Your task to perform on an android device: Search for flights from Tokyo to NYC Image 0: 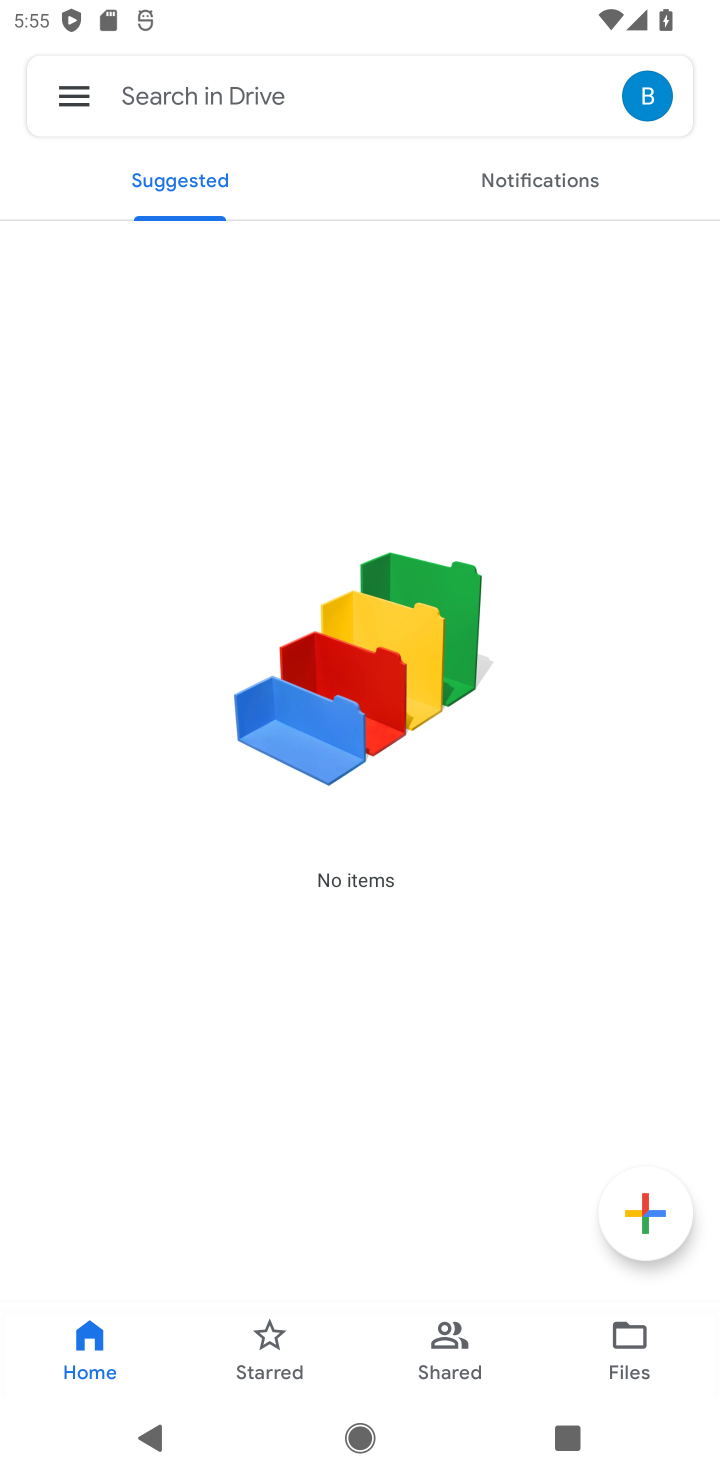
Step 0: press home button
Your task to perform on an android device: Search for flights from Tokyo to NYC Image 1: 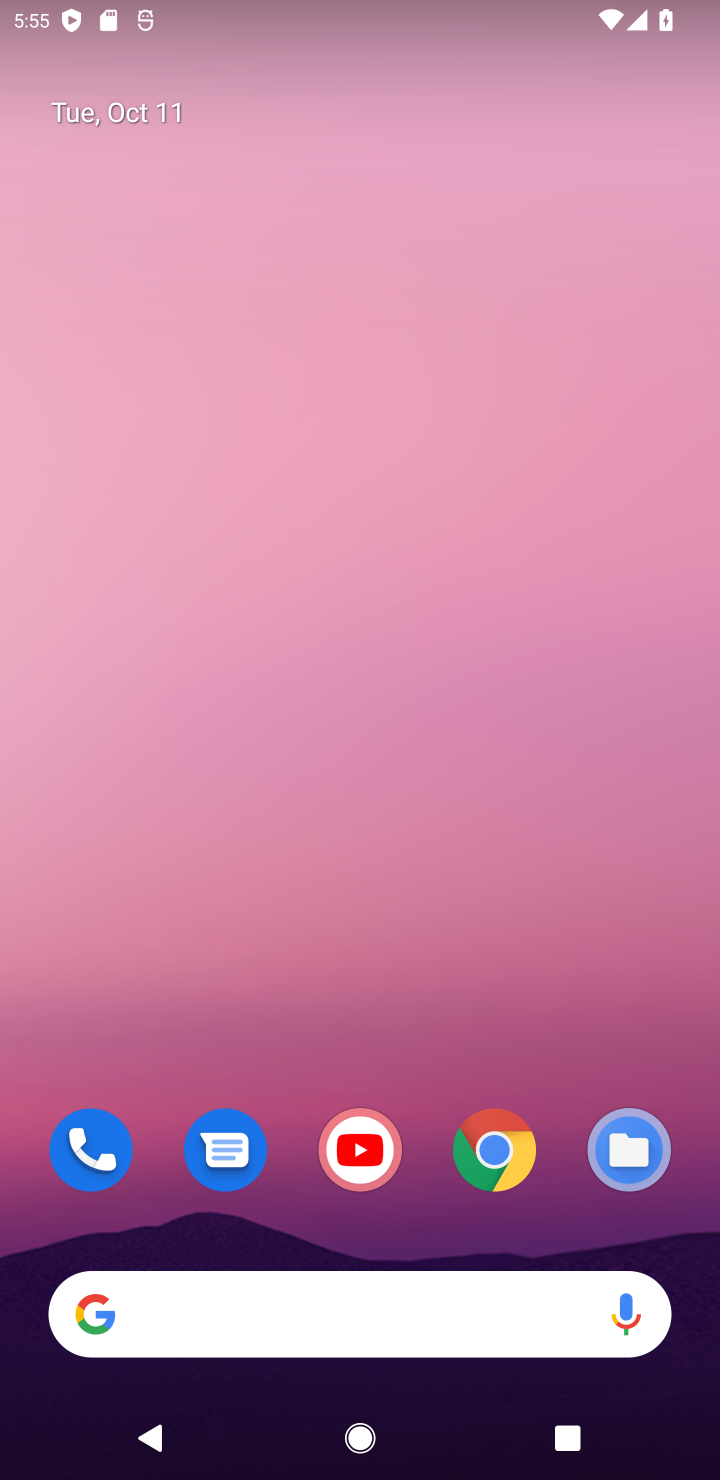
Step 1: click (492, 1161)
Your task to perform on an android device: Search for flights from Tokyo to NYC Image 2: 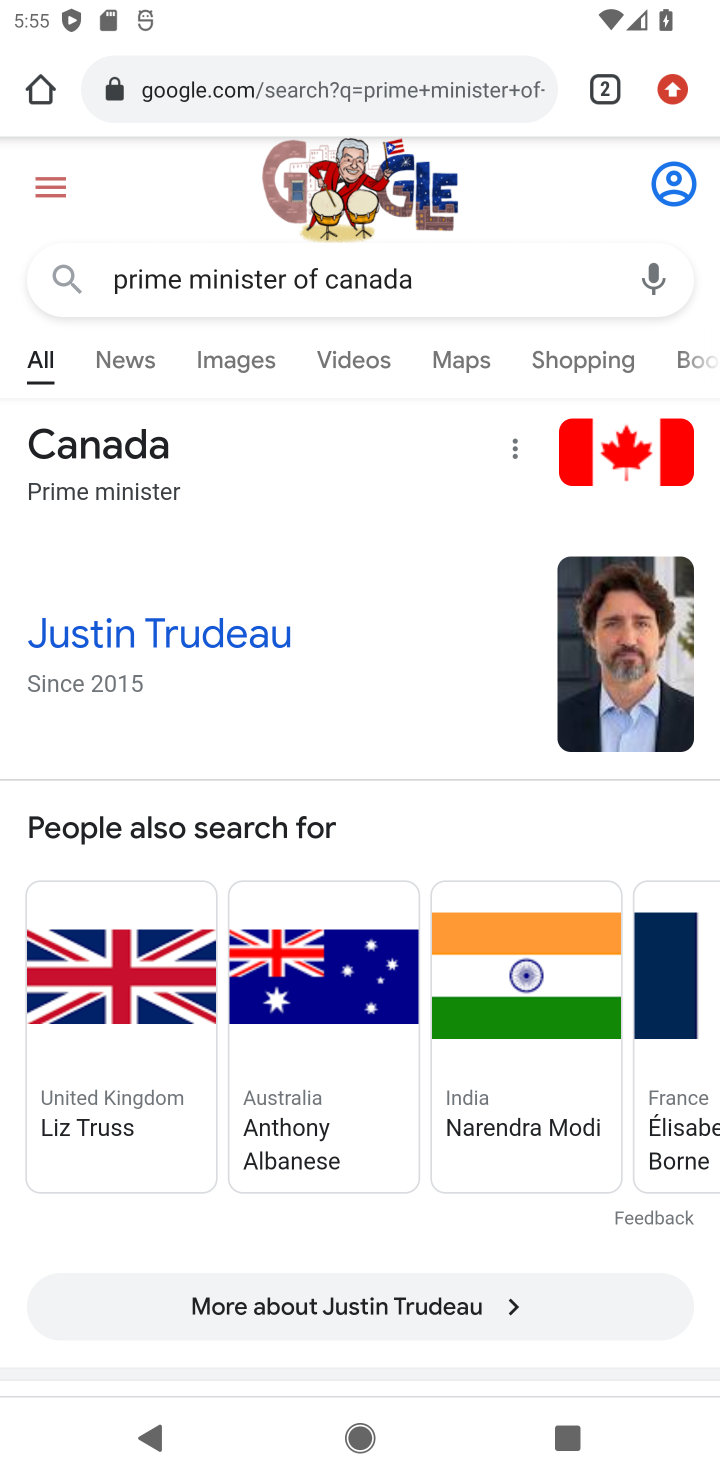
Step 2: type "flight "
Your task to perform on an android device: Search for flights from Tokyo to NYC Image 3: 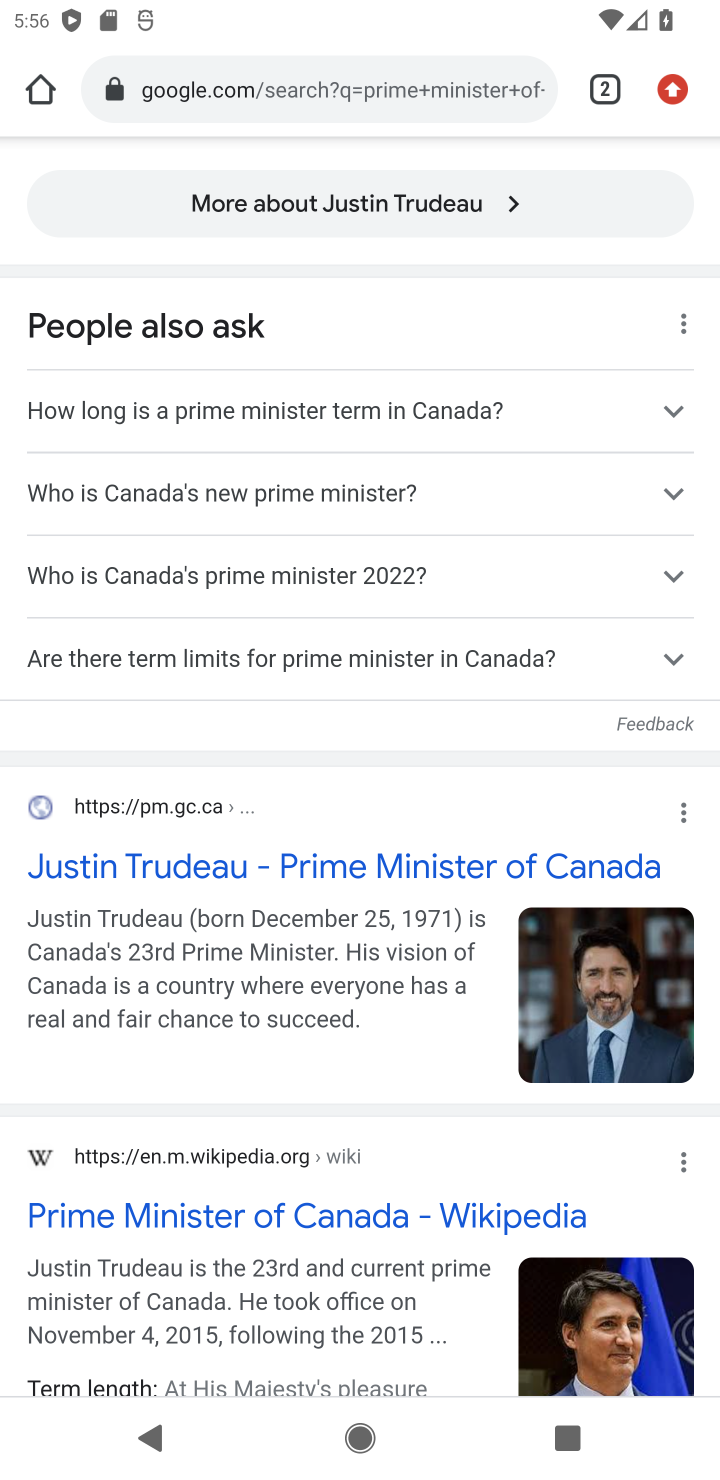
Step 3: type "tokyo to nyc flights "
Your task to perform on an android device: Search for flights from Tokyo to NYC Image 4: 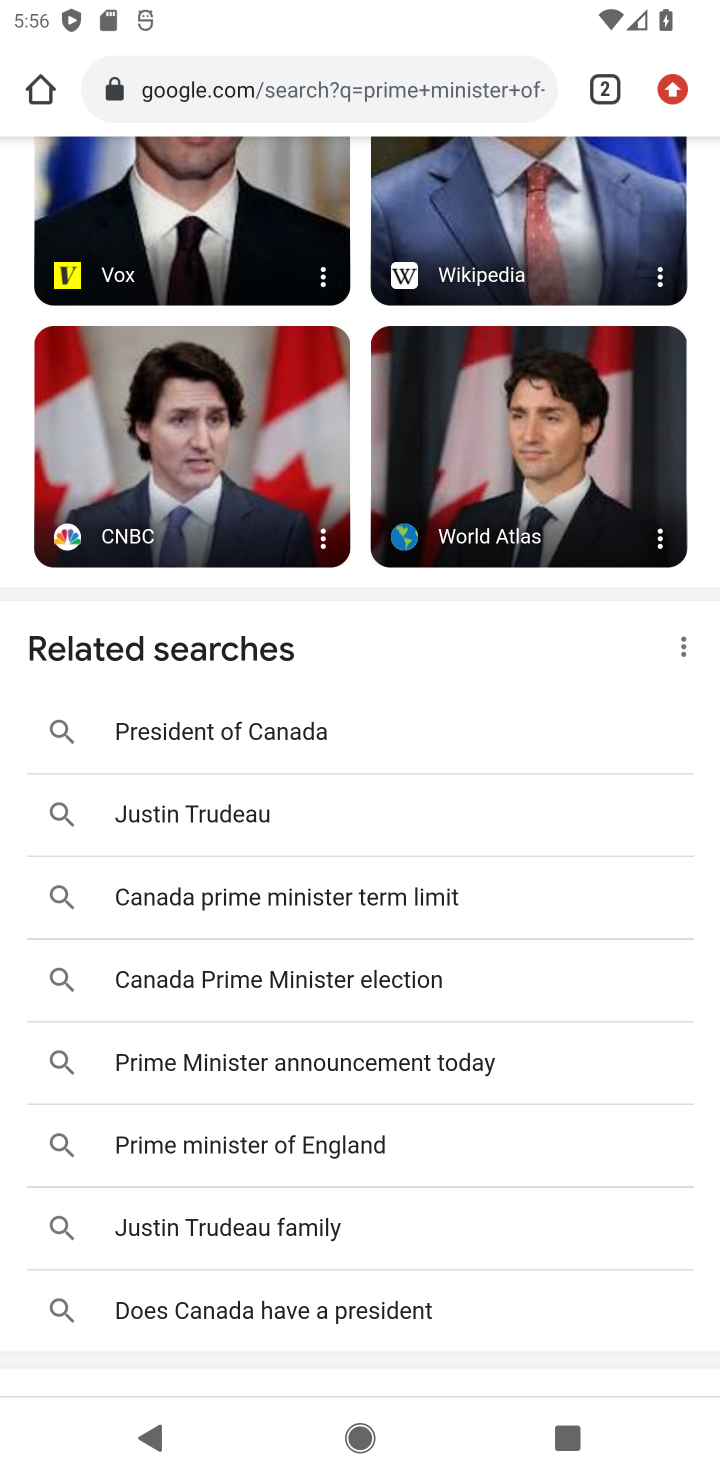
Step 4: click (313, 87)
Your task to perform on an android device: Search for flights from Tokyo to NYC Image 5: 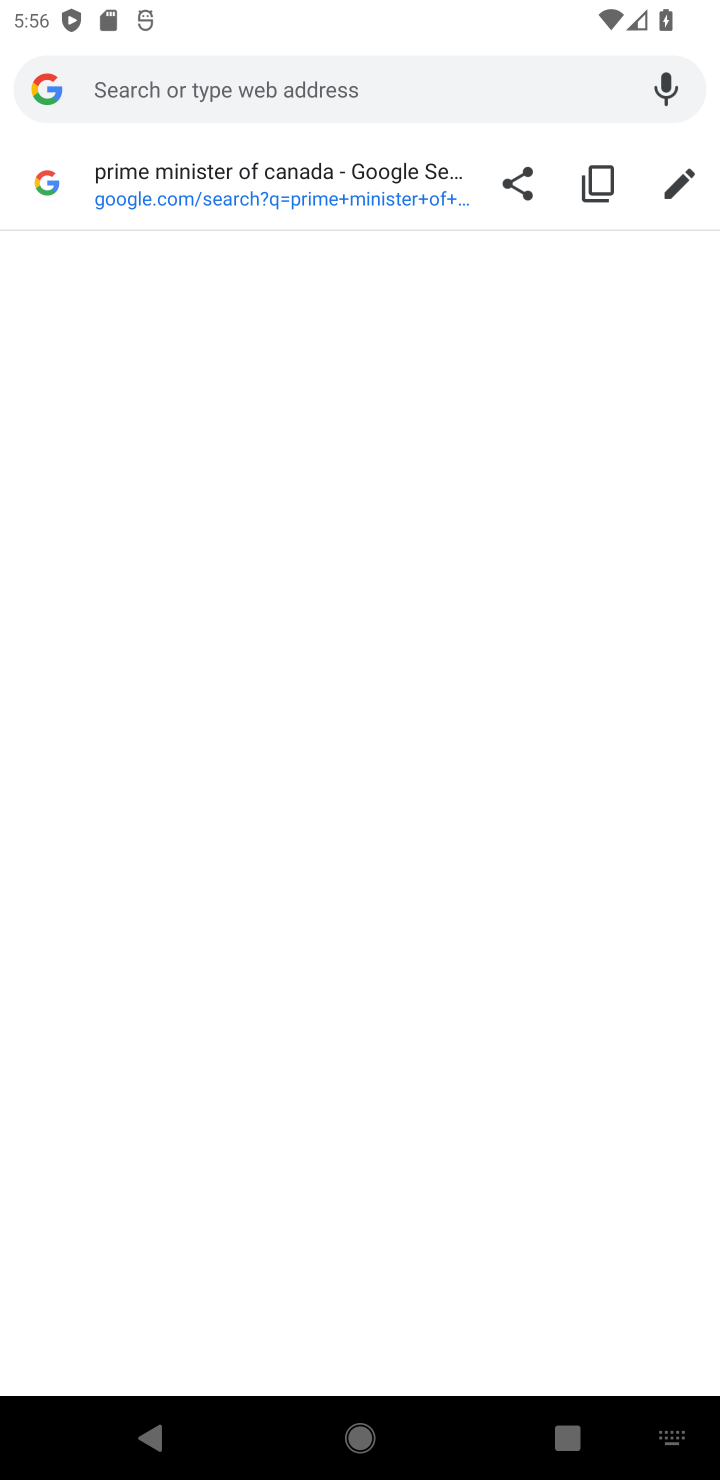
Step 5: type "tokyo to nyc flights"
Your task to perform on an android device: Search for flights from Tokyo to NYC Image 6: 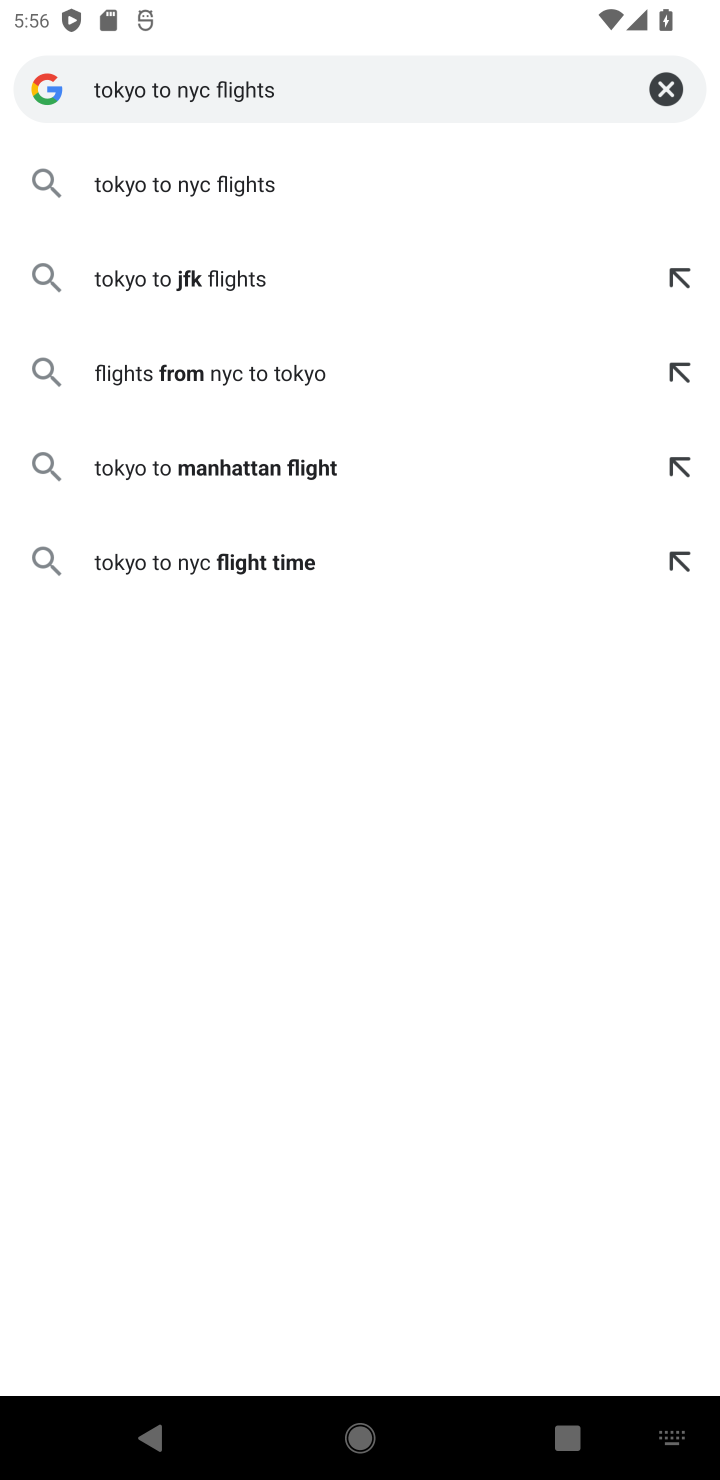
Step 6: click (196, 186)
Your task to perform on an android device: Search for flights from Tokyo to NYC Image 7: 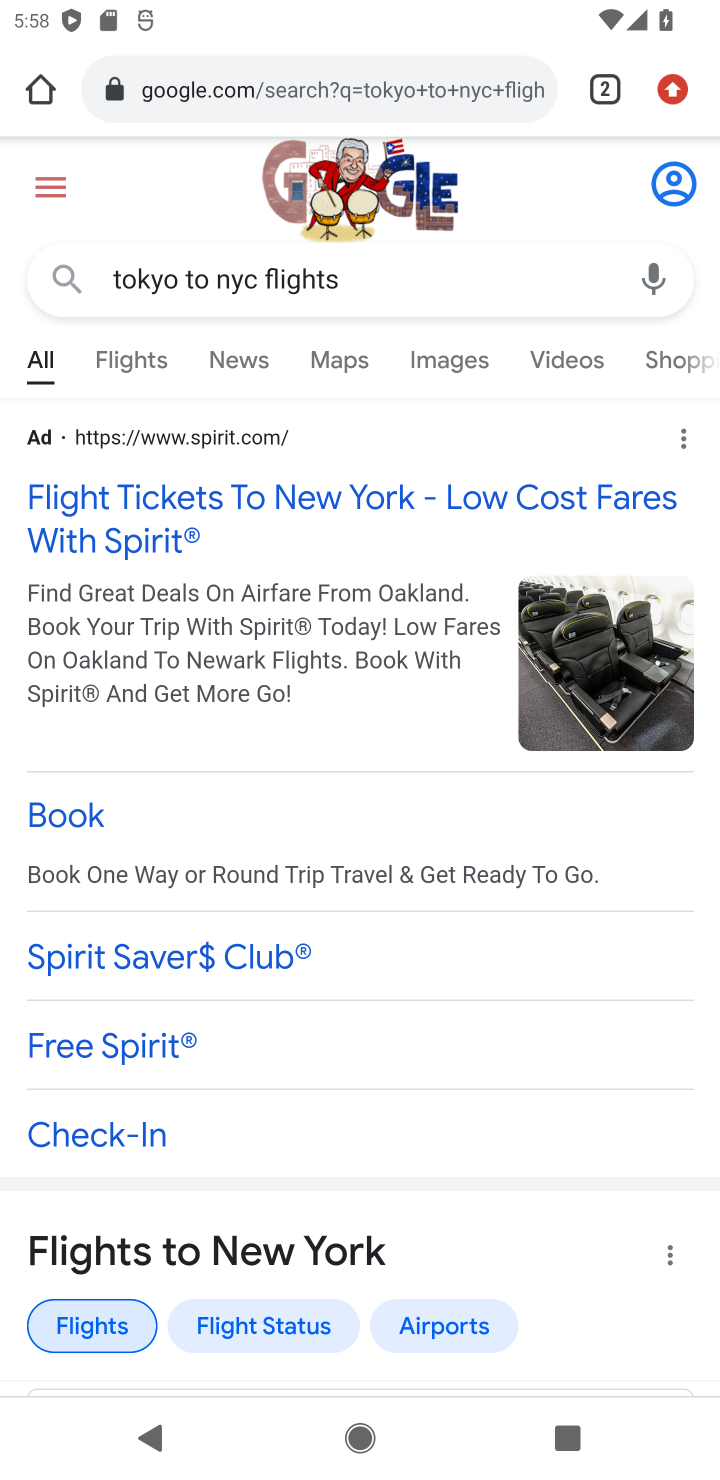
Step 7: click (136, 371)
Your task to perform on an android device: Search for flights from Tokyo to NYC Image 8: 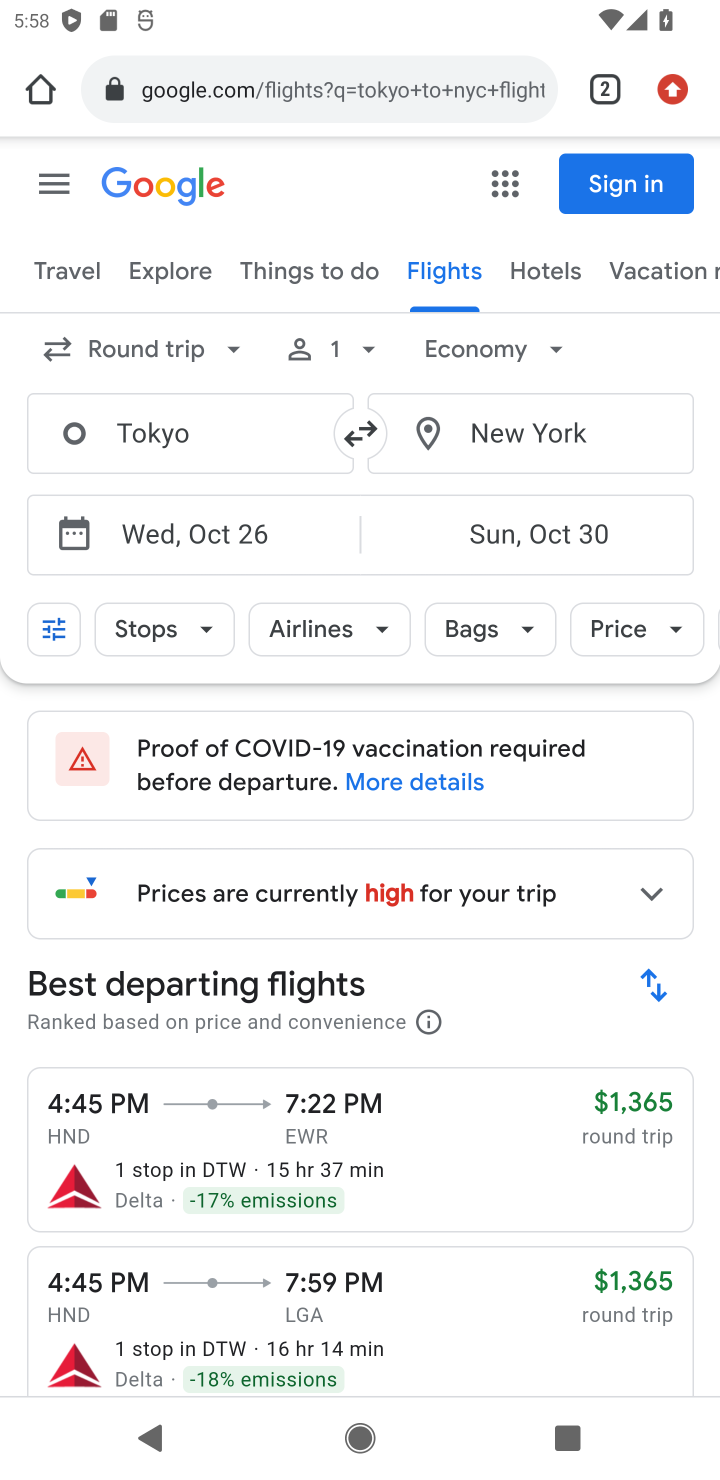
Step 8: task complete